Your task to perform on an android device: open a bookmark in the chrome app Image 0: 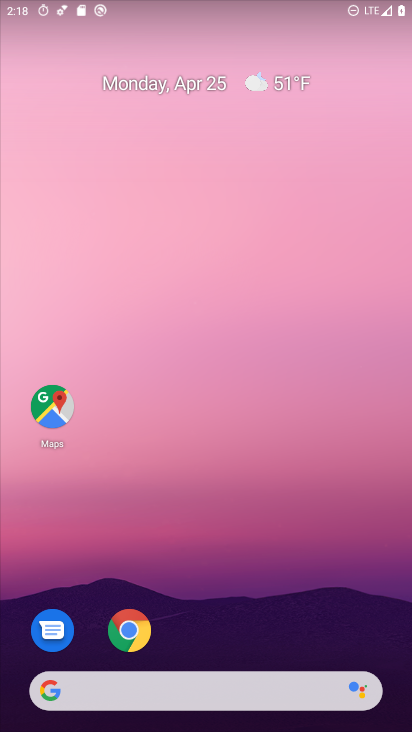
Step 0: drag from (179, 637) to (208, 109)
Your task to perform on an android device: open a bookmark in the chrome app Image 1: 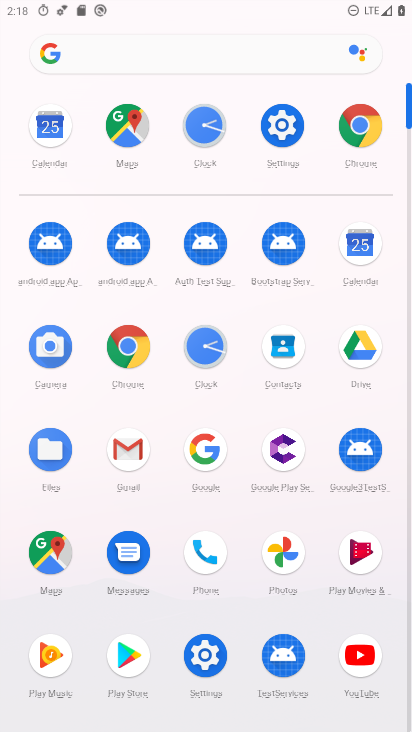
Step 1: click (114, 344)
Your task to perform on an android device: open a bookmark in the chrome app Image 2: 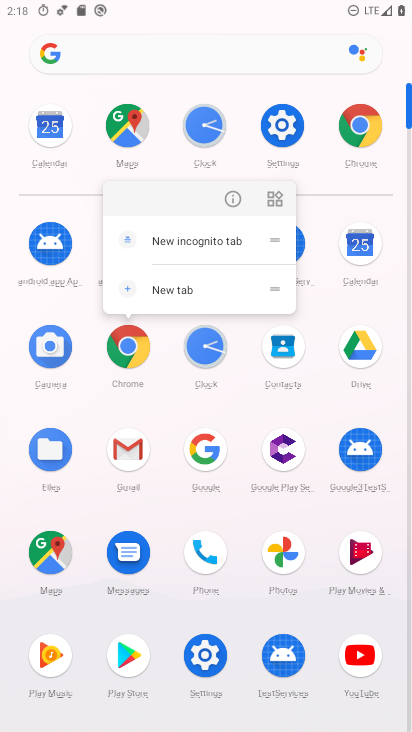
Step 2: click (237, 198)
Your task to perform on an android device: open a bookmark in the chrome app Image 3: 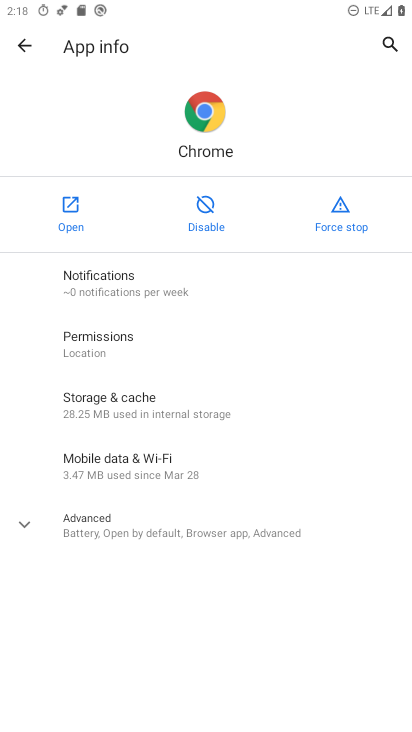
Step 3: click (70, 184)
Your task to perform on an android device: open a bookmark in the chrome app Image 4: 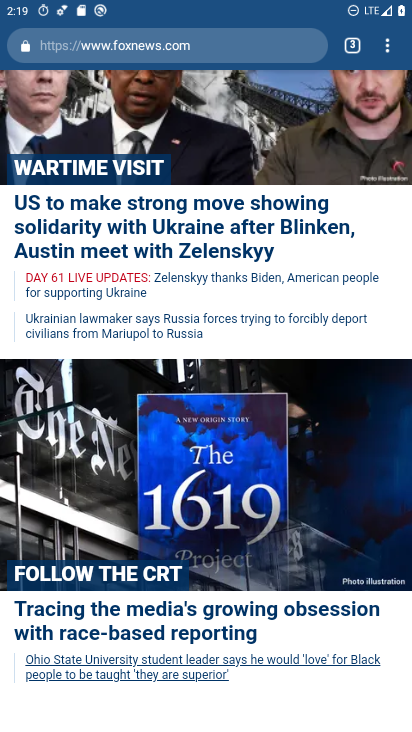
Step 4: task complete